Your task to perform on an android device: change the clock display to digital Image 0: 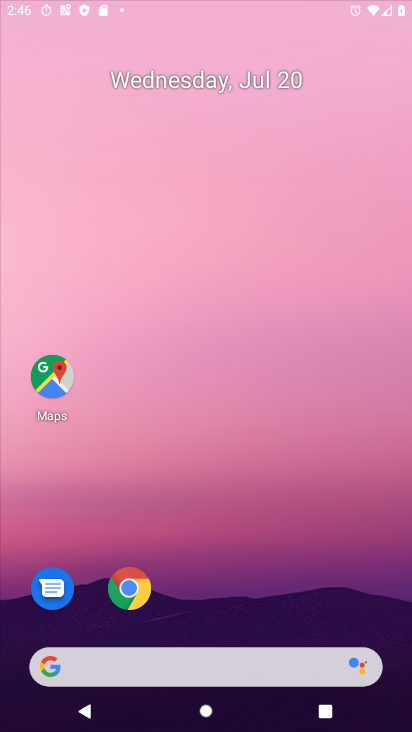
Step 0: drag from (232, 589) to (140, 0)
Your task to perform on an android device: change the clock display to digital Image 1: 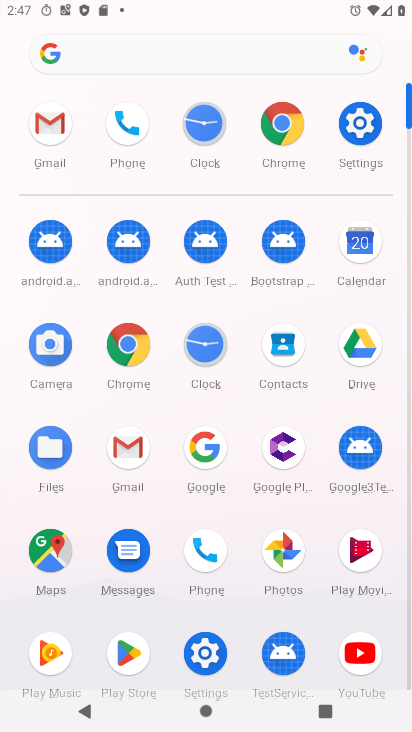
Step 1: click (198, 343)
Your task to perform on an android device: change the clock display to digital Image 2: 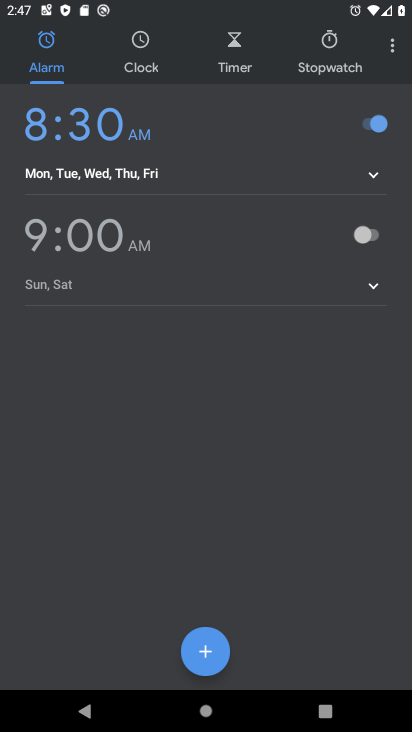
Step 2: click (401, 46)
Your task to perform on an android device: change the clock display to digital Image 3: 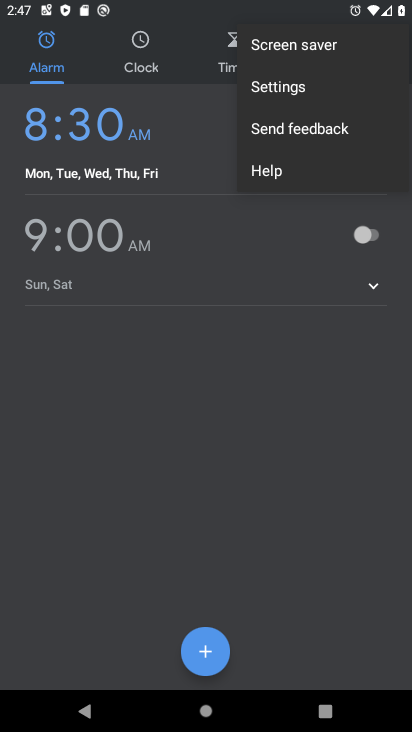
Step 3: click (310, 427)
Your task to perform on an android device: change the clock display to digital Image 4: 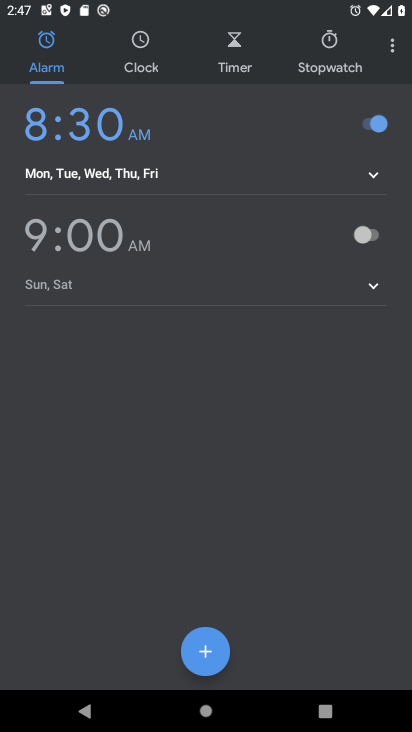
Step 4: click (397, 53)
Your task to perform on an android device: change the clock display to digital Image 5: 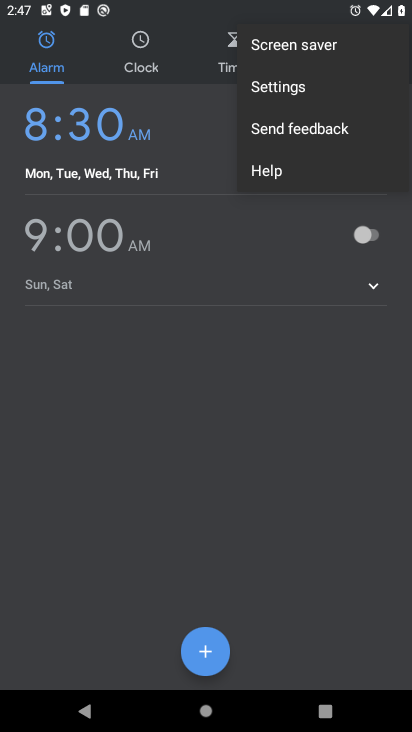
Step 5: click (311, 85)
Your task to perform on an android device: change the clock display to digital Image 6: 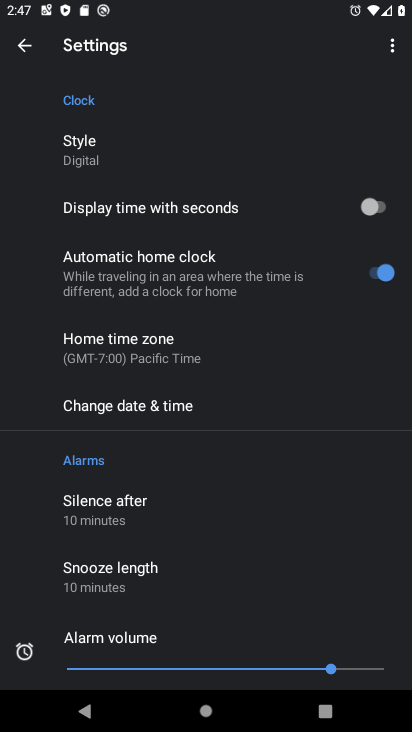
Step 6: task complete